Your task to perform on an android device: open a bookmark in the chrome app Image 0: 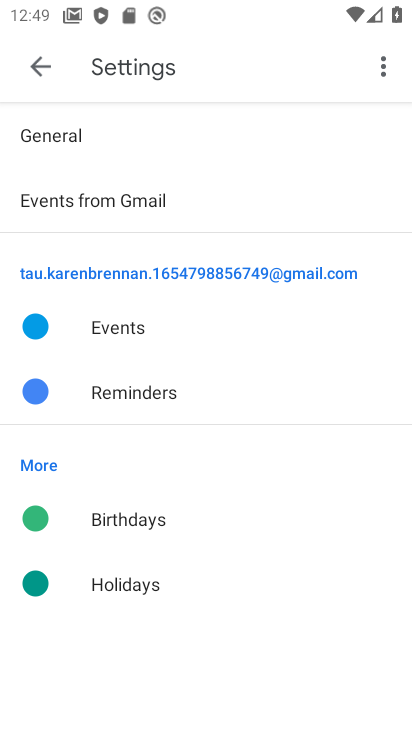
Step 0: press home button
Your task to perform on an android device: open a bookmark in the chrome app Image 1: 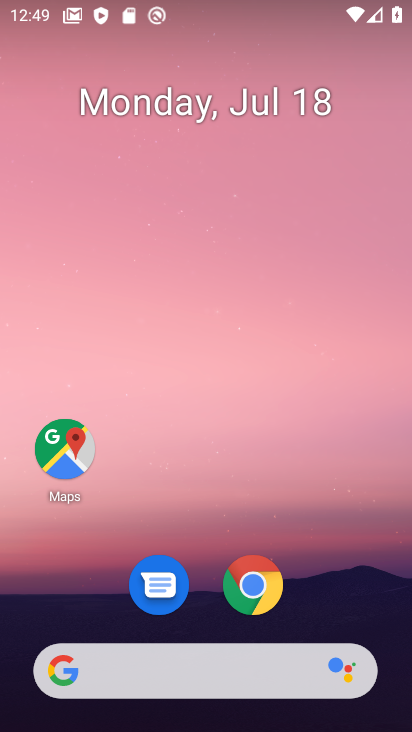
Step 1: click (247, 581)
Your task to perform on an android device: open a bookmark in the chrome app Image 2: 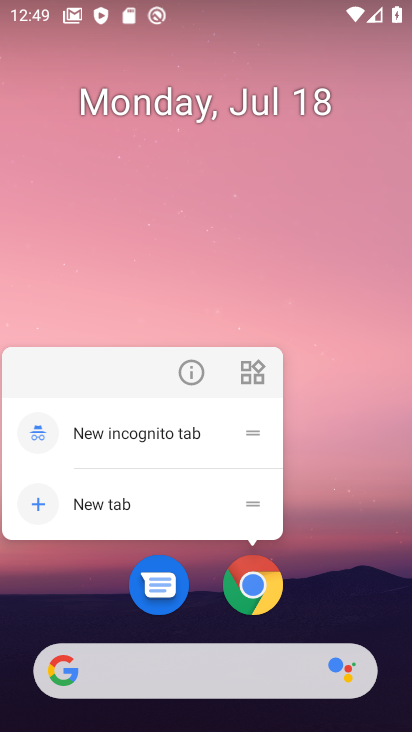
Step 2: click (247, 582)
Your task to perform on an android device: open a bookmark in the chrome app Image 3: 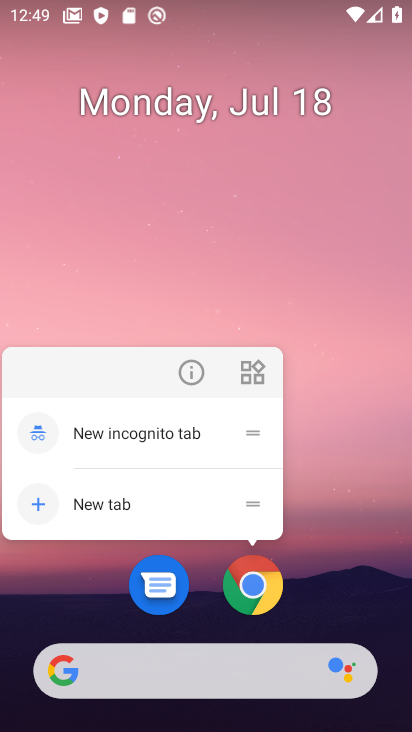
Step 3: click (244, 592)
Your task to perform on an android device: open a bookmark in the chrome app Image 4: 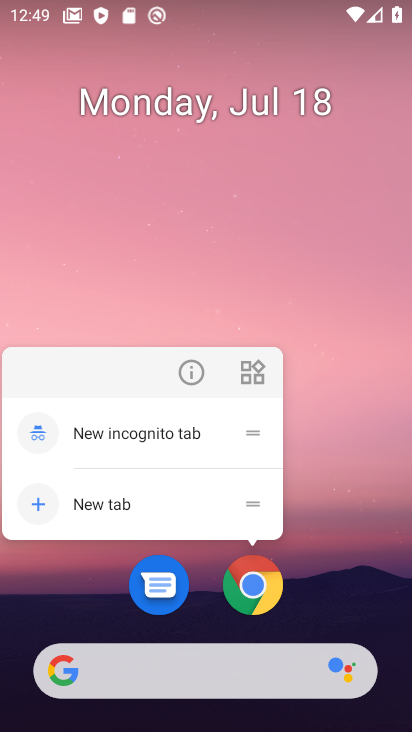
Step 4: click (250, 592)
Your task to perform on an android device: open a bookmark in the chrome app Image 5: 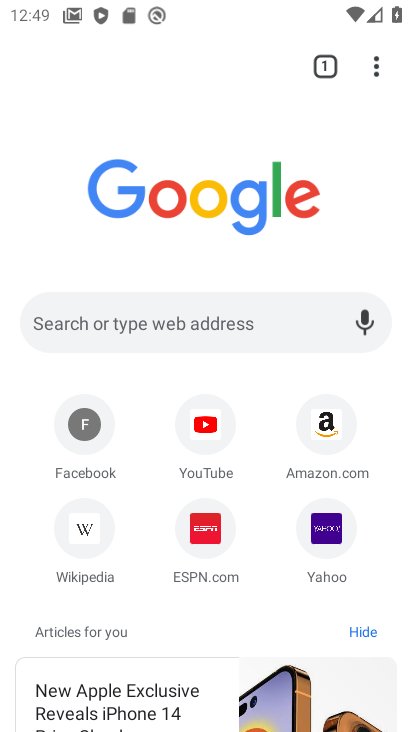
Step 5: task complete